Your task to perform on an android device: turn off picture-in-picture Image 0: 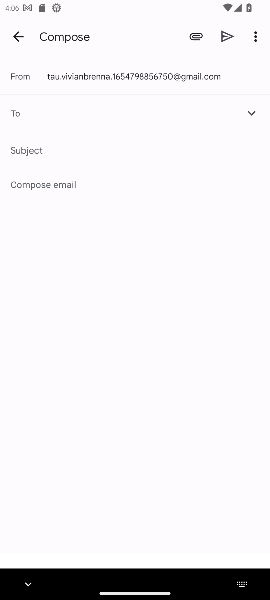
Step 0: press home button
Your task to perform on an android device: turn off picture-in-picture Image 1: 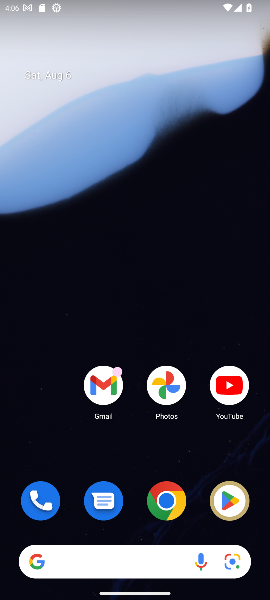
Step 1: click (171, 502)
Your task to perform on an android device: turn off picture-in-picture Image 2: 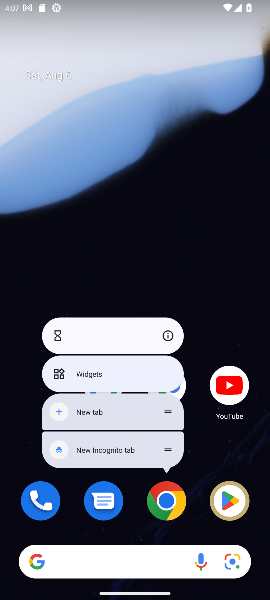
Step 2: click (163, 335)
Your task to perform on an android device: turn off picture-in-picture Image 3: 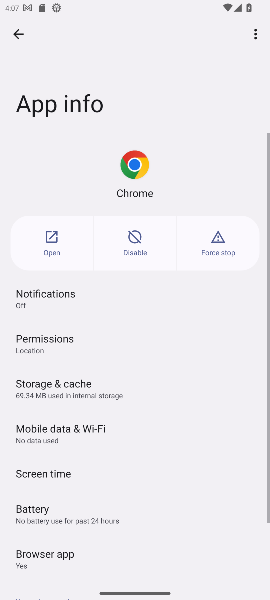
Step 3: drag from (176, 497) to (176, 85)
Your task to perform on an android device: turn off picture-in-picture Image 4: 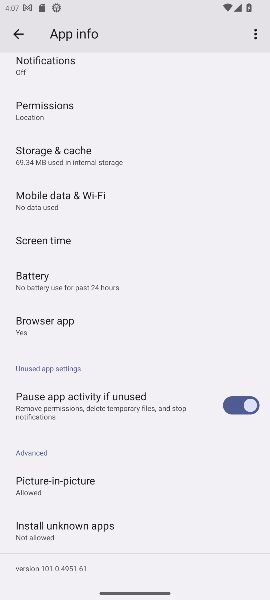
Step 4: click (63, 491)
Your task to perform on an android device: turn off picture-in-picture Image 5: 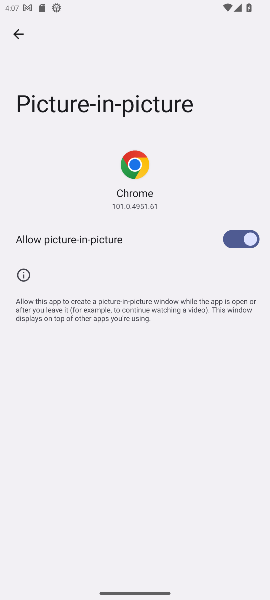
Step 5: click (224, 232)
Your task to perform on an android device: turn off picture-in-picture Image 6: 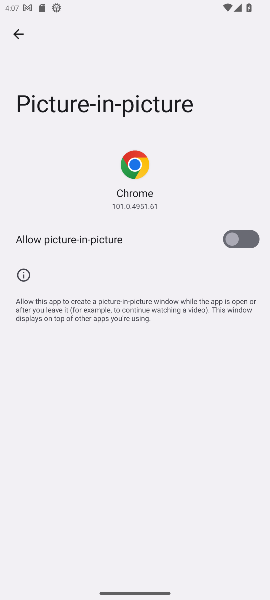
Step 6: task complete